Your task to perform on an android device: Set the phone to "Do not disturb". Image 0: 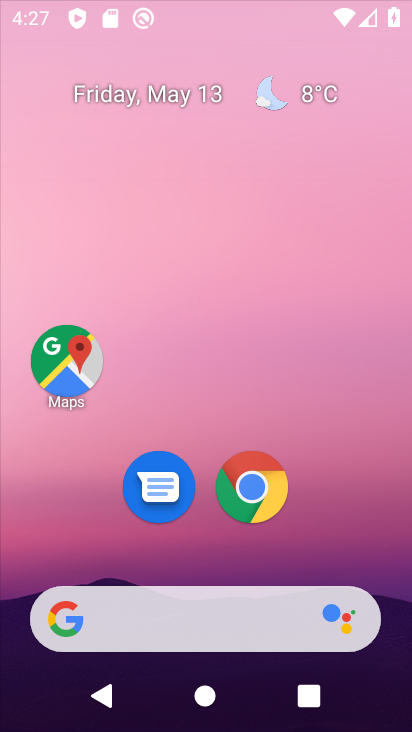
Step 0: press home button
Your task to perform on an android device: Set the phone to "Do not disturb". Image 1: 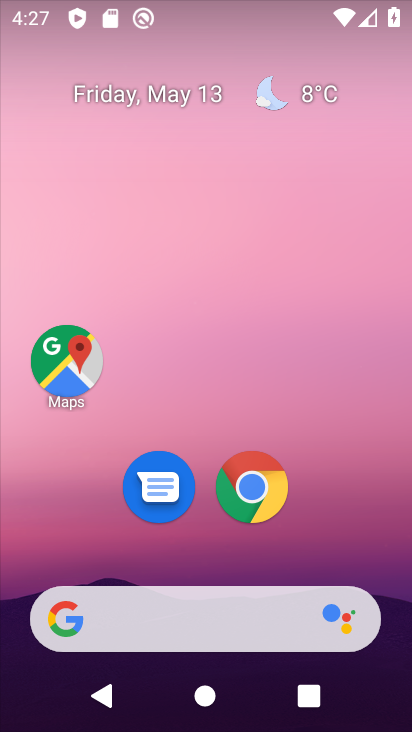
Step 1: drag from (330, 507) to (310, 109)
Your task to perform on an android device: Set the phone to "Do not disturb". Image 2: 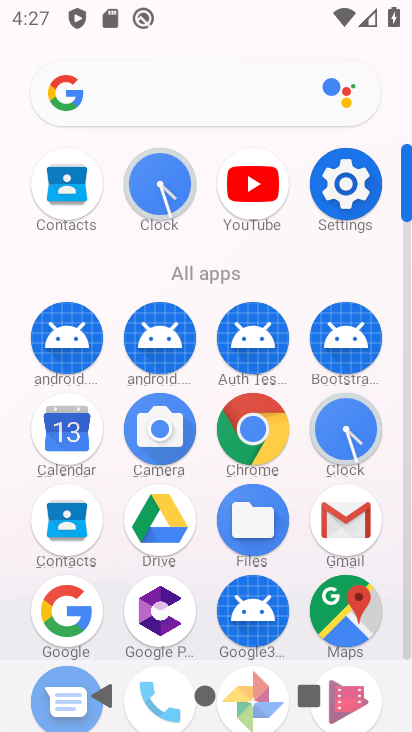
Step 2: click (355, 201)
Your task to perform on an android device: Set the phone to "Do not disturb". Image 3: 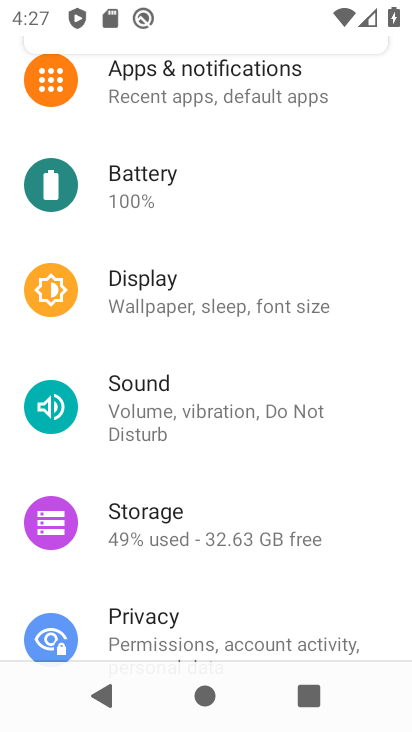
Step 3: click (257, 392)
Your task to perform on an android device: Set the phone to "Do not disturb". Image 4: 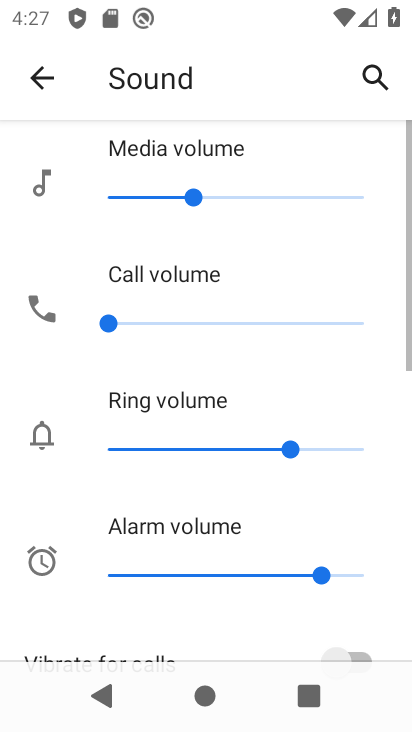
Step 4: drag from (193, 545) to (256, 174)
Your task to perform on an android device: Set the phone to "Do not disturb". Image 5: 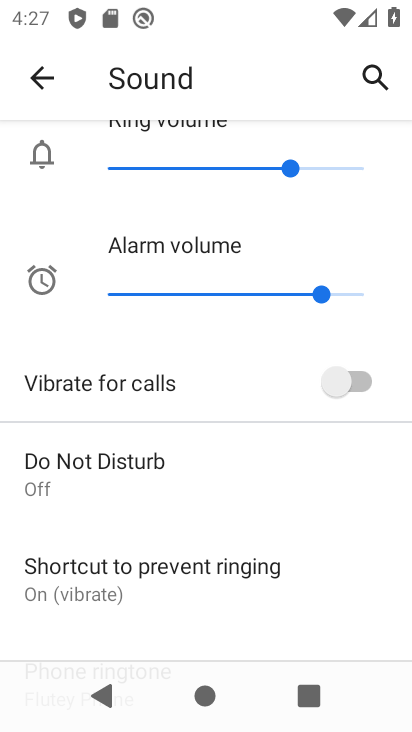
Step 5: click (261, 460)
Your task to perform on an android device: Set the phone to "Do not disturb". Image 6: 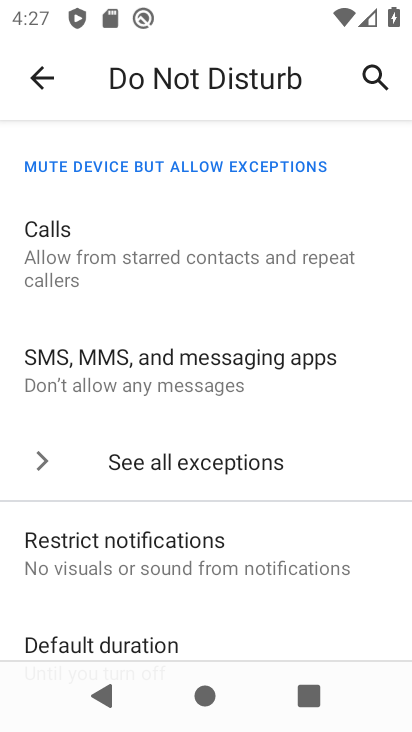
Step 6: drag from (239, 552) to (296, 334)
Your task to perform on an android device: Set the phone to "Do not disturb". Image 7: 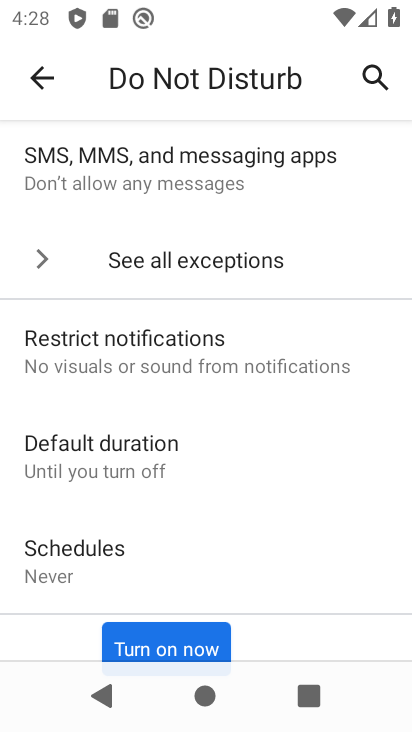
Step 7: click (192, 650)
Your task to perform on an android device: Set the phone to "Do not disturb". Image 8: 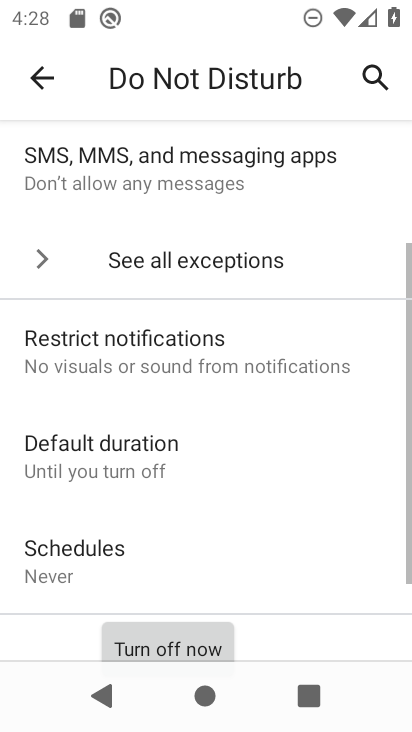
Step 8: task complete